Your task to perform on an android device: Go to network settings Image 0: 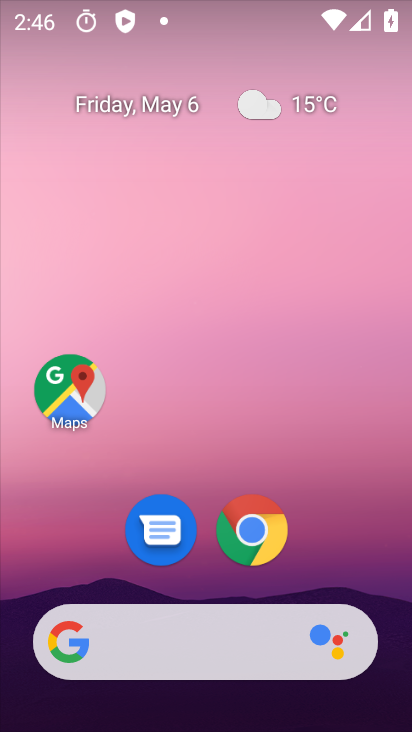
Step 0: drag from (359, 551) to (309, 171)
Your task to perform on an android device: Go to network settings Image 1: 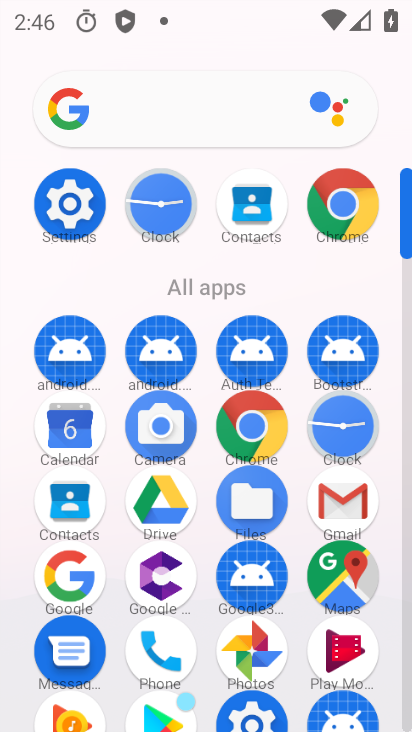
Step 1: click (73, 207)
Your task to perform on an android device: Go to network settings Image 2: 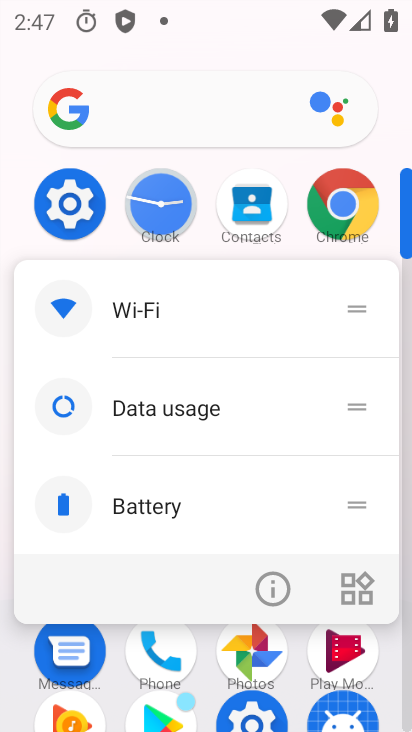
Step 2: click (70, 206)
Your task to perform on an android device: Go to network settings Image 3: 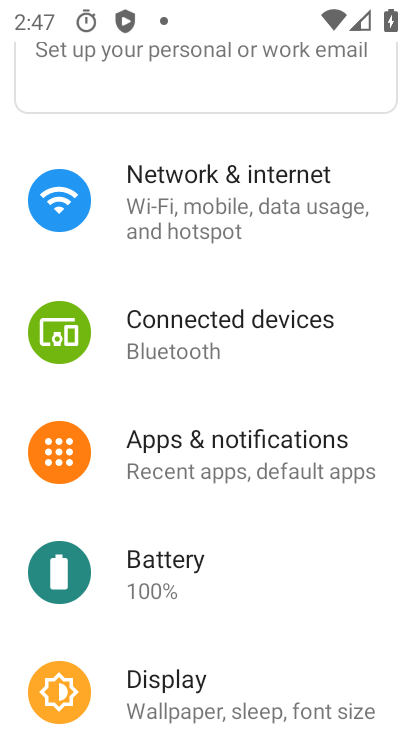
Step 3: click (239, 219)
Your task to perform on an android device: Go to network settings Image 4: 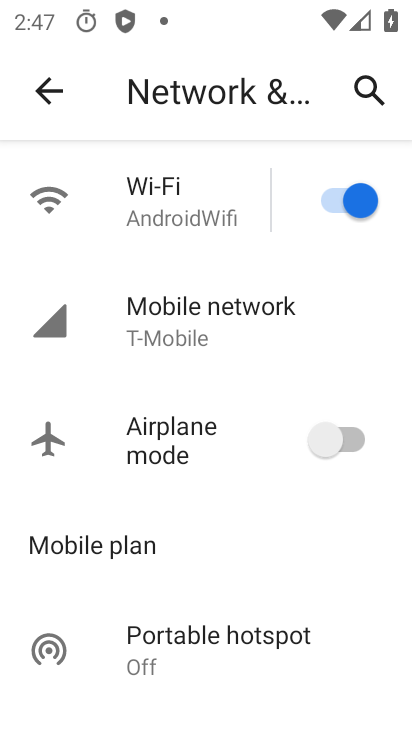
Step 4: click (226, 321)
Your task to perform on an android device: Go to network settings Image 5: 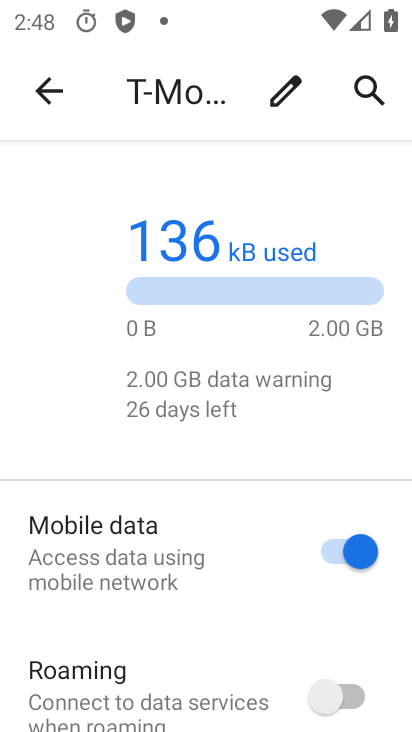
Step 5: task complete